Your task to perform on an android device: Open Google Image 0: 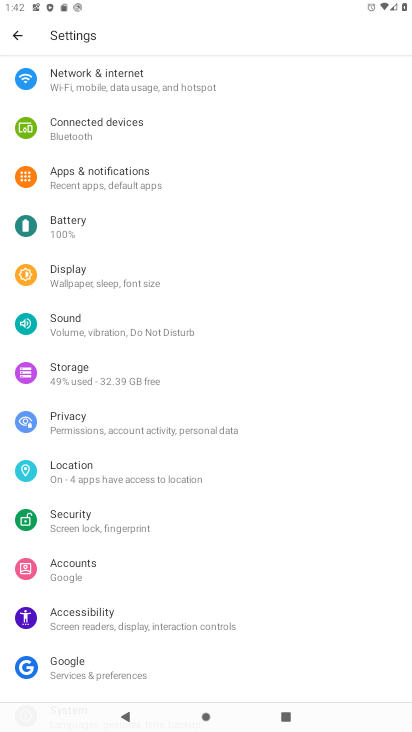
Step 0: press home button
Your task to perform on an android device: Open Google Image 1: 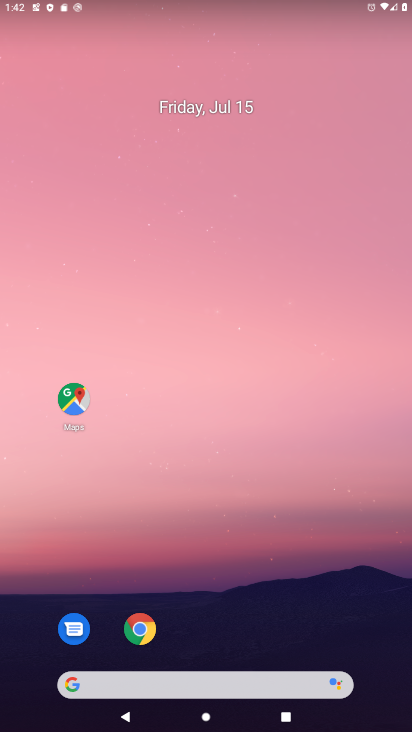
Step 1: drag from (334, 592) to (284, 68)
Your task to perform on an android device: Open Google Image 2: 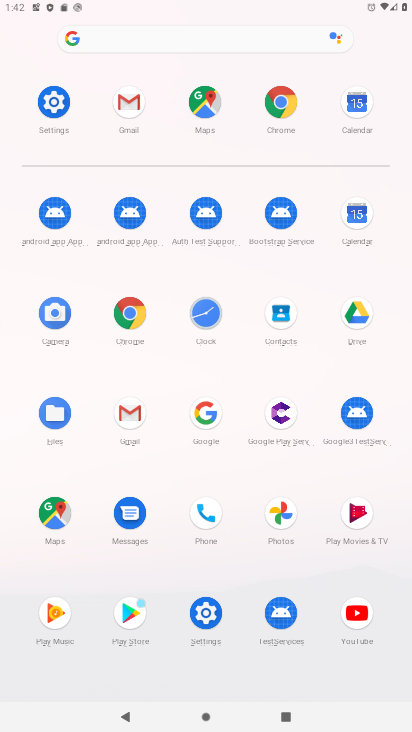
Step 2: click (208, 416)
Your task to perform on an android device: Open Google Image 3: 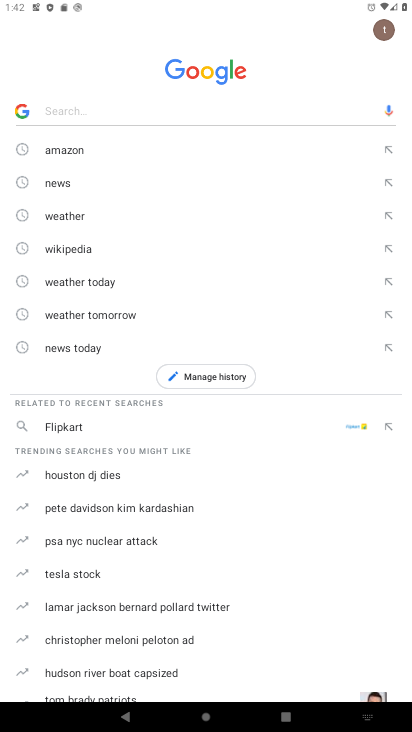
Step 3: task complete